Your task to perform on an android device: What's US dollar exchange rateagainst the Mexican Peso? Image 0: 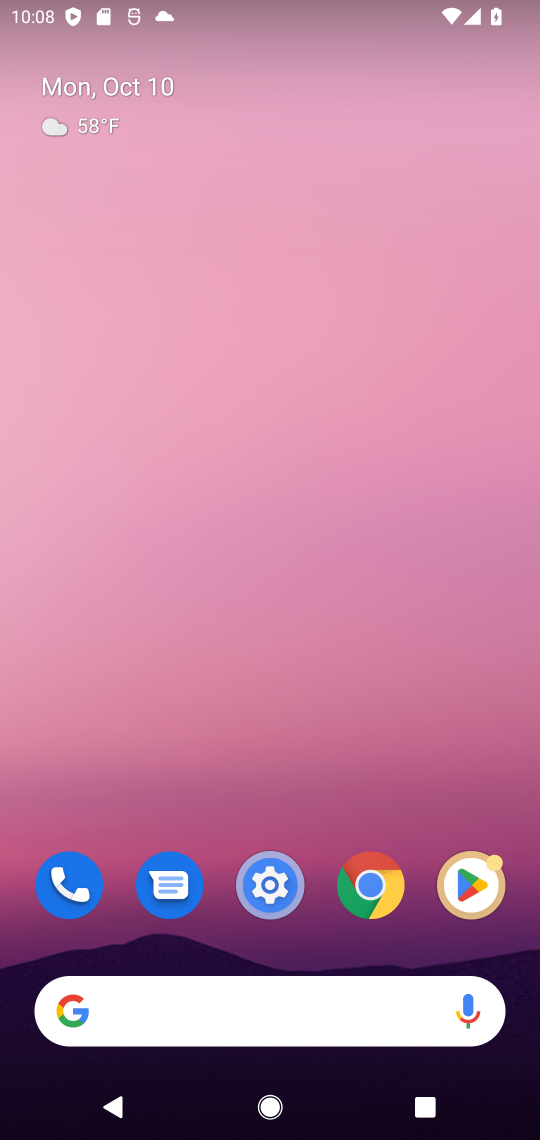
Step 0: click (372, 877)
Your task to perform on an android device: What's US dollar exchange rateagainst the Mexican Peso? Image 1: 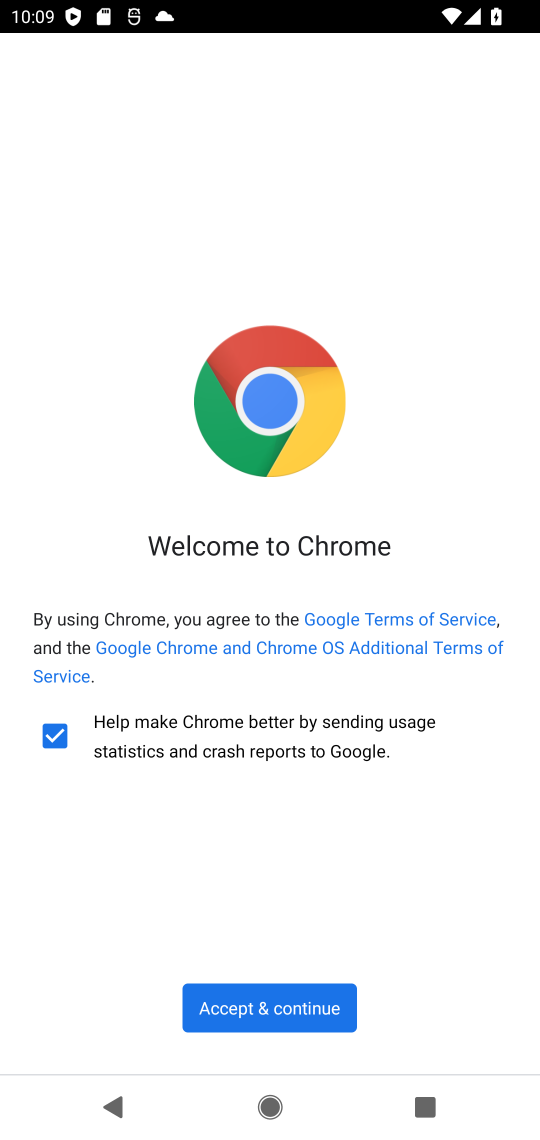
Step 1: click (315, 1016)
Your task to perform on an android device: What's US dollar exchange rateagainst the Mexican Peso? Image 2: 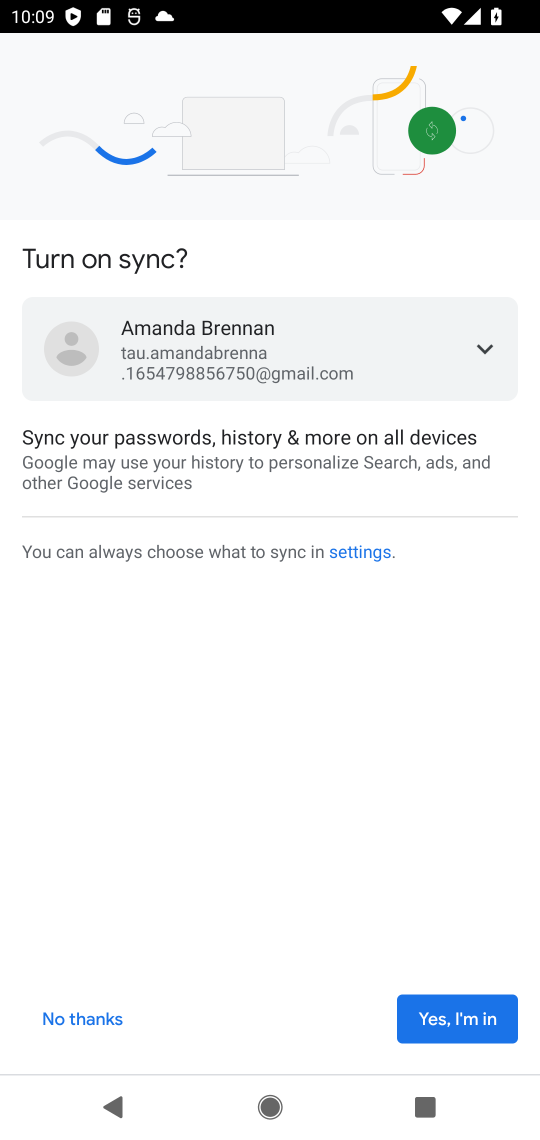
Step 2: click (453, 1037)
Your task to perform on an android device: What's US dollar exchange rateagainst the Mexican Peso? Image 3: 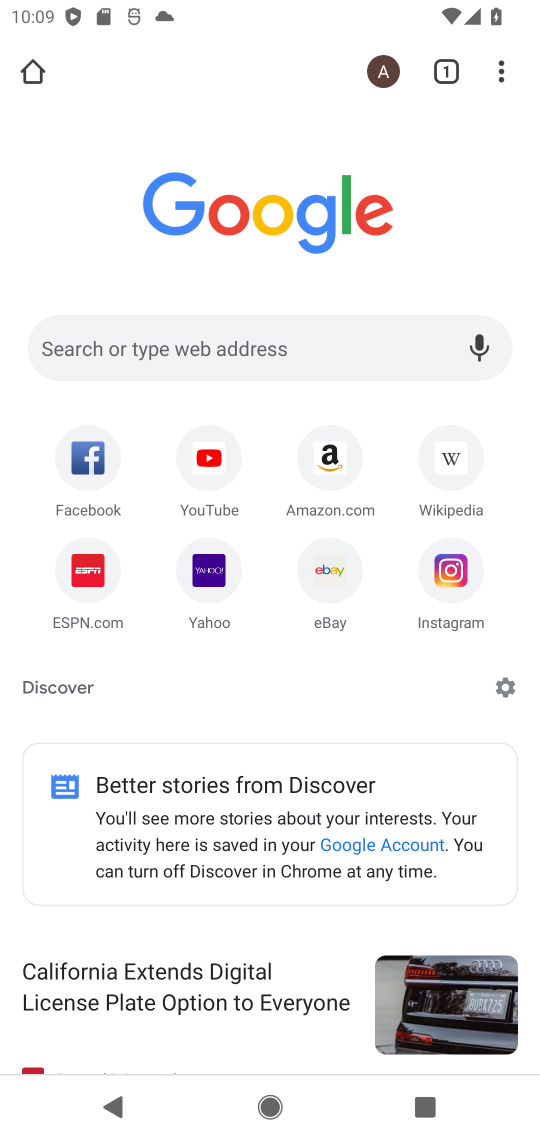
Step 3: click (297, 365)
Your task to perform on an android device: What's US dollar exchange rateagainst the Mexican Peso? Image 4: 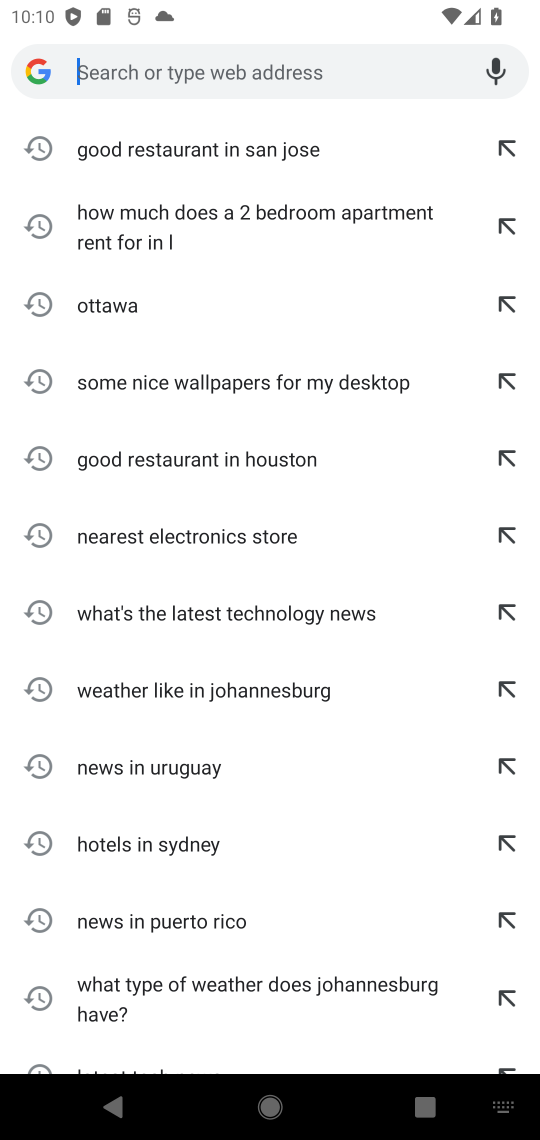
Step 4: type "usd to peso"
Your task to perform on an android device: What's US dollar exchange rateagainst the Mexican Peso? Image 5: 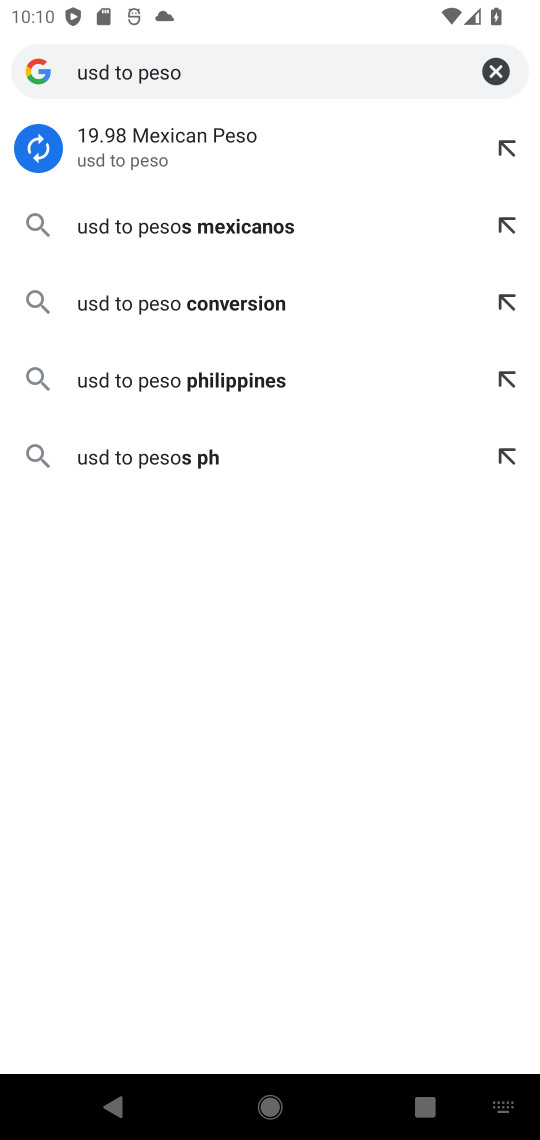
Step 5: click (130, 142)
Your task to perform on an android device: What's US dollar exchange rateagainst the Mexican Peso? Image 6: 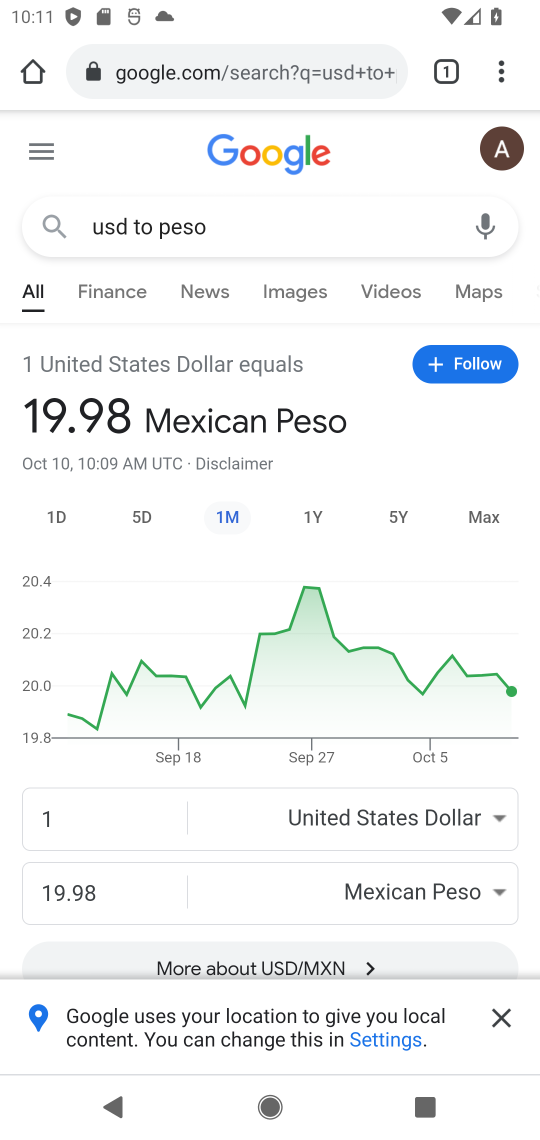
Step 6: task complete